Your task to perform on an android device: Go to wifi settings Image 0: 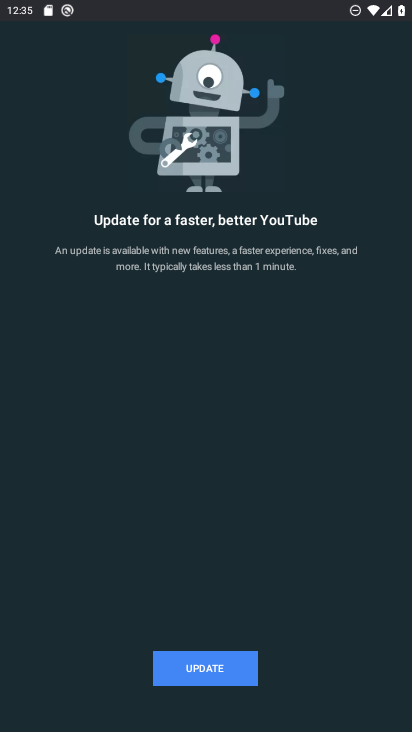
Step 0: press home button
Your task to perform on an android device: Go to wifi settings Image 1: 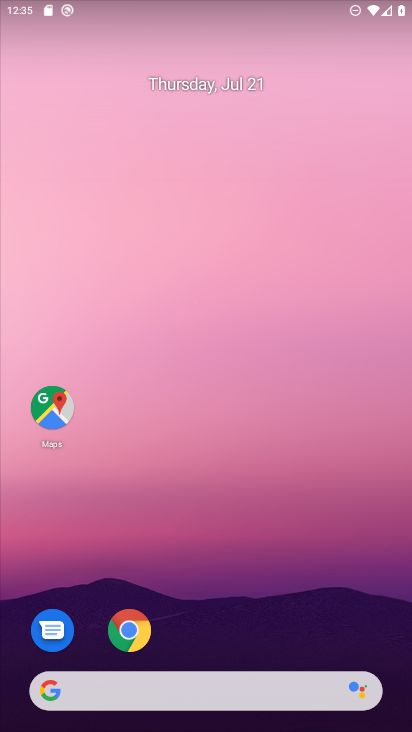
Step 1: drag from (384, 704) to (370, 90)
Your task to perform on an android device: Go to wifi settings Image 2: 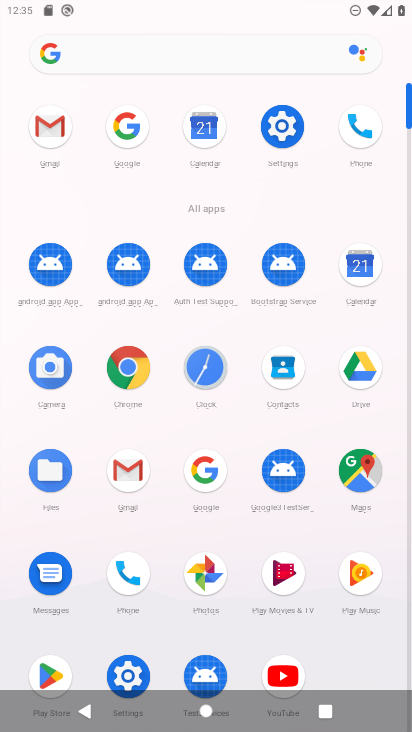
Step 2: click (263, 116)
Your task to perform on an android device: Go to wifi settings Image 3: 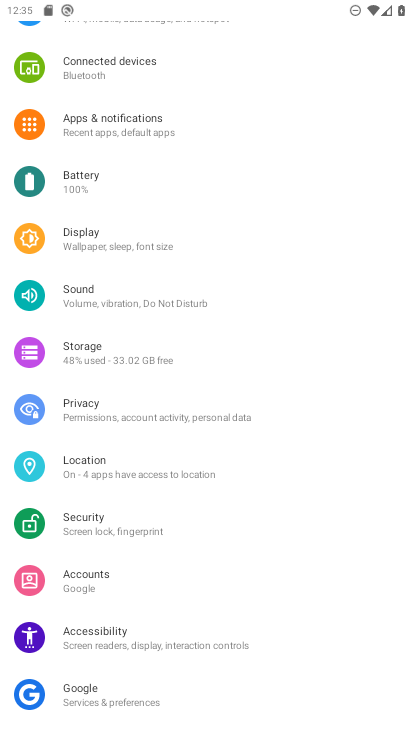
Step 3: drag from (243, 88) to (235, 415)
Your task to perform on an android device: Go to wifi settings Image 4: 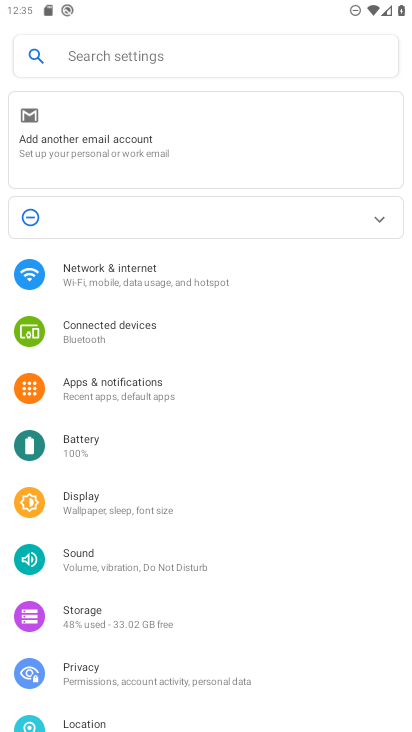
Step 4: click (142, 272)
Your task to perform on an android device: Go to wifi settings Image 5: 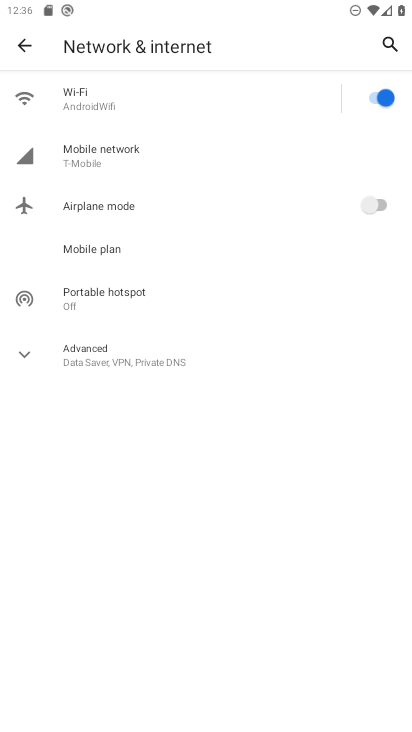
Step 5: click (241, 96)
Your task to perform on an android device: Go to wifi settings Image 6: 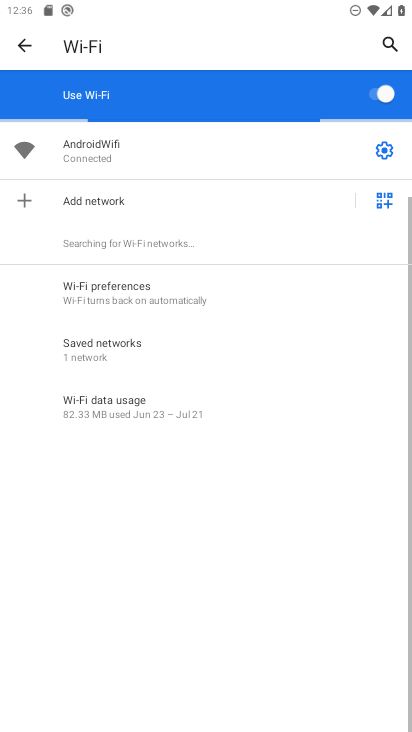
Step 6: click (385, 153)
Your task to perform on an android device: Go to wifi settings Image 7: 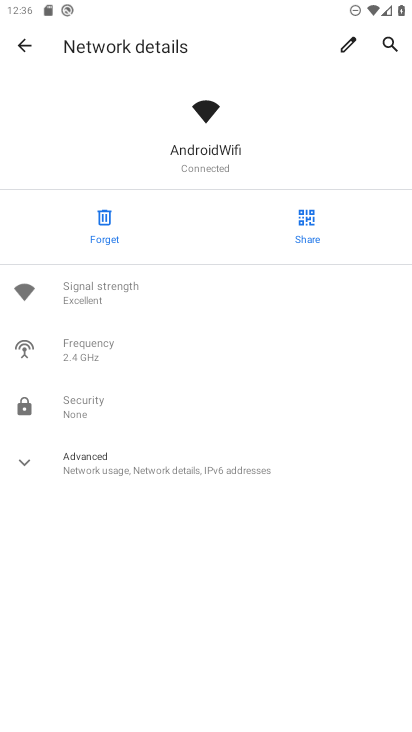
Step 7: task complete